Your task to perform on an android device: install app "VLC for Android" Image 0: 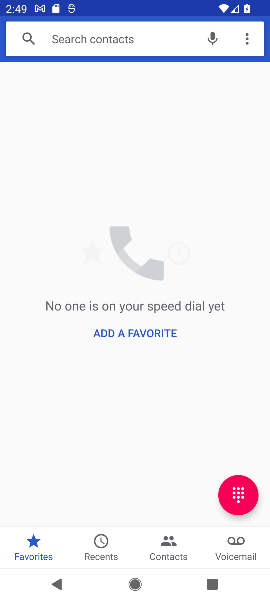
Step 0: press home button
Your task to perform on an android device: install app "VLC for Android" Image 1: 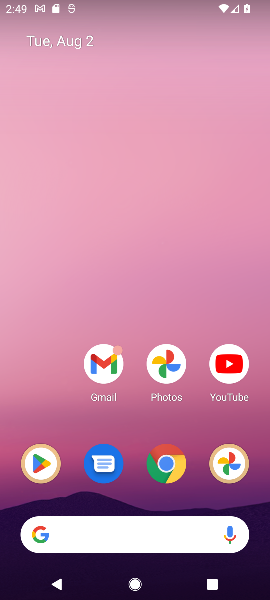
Step 1: click (45, 462)
Your task to perform on an android device: install app "VLC for Android" Image 2: 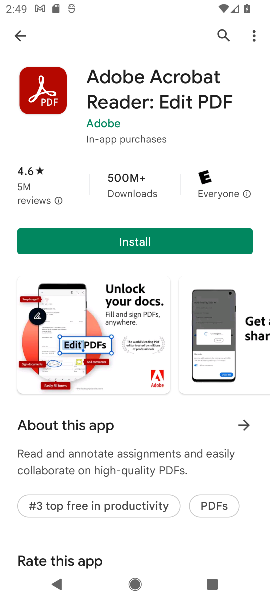
Step 2: click (219, 34)
Your task to perform on an android device: install app "VLC for Android" Image 3: 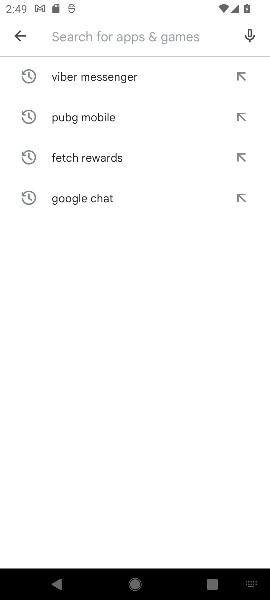
Step 3: type "VLC for Android"
Your task to perform on an android device: install app "VLC for Android" Image 4: 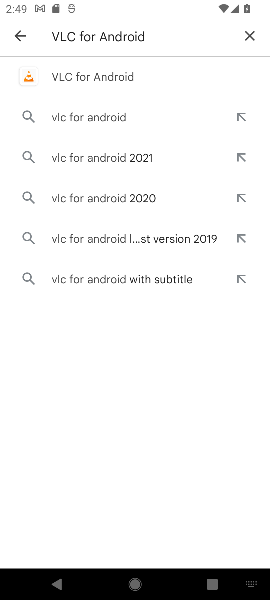
Step 4: click (100, 72)
Your task to perform on an android device: install app "VLC for Android" Image 5: 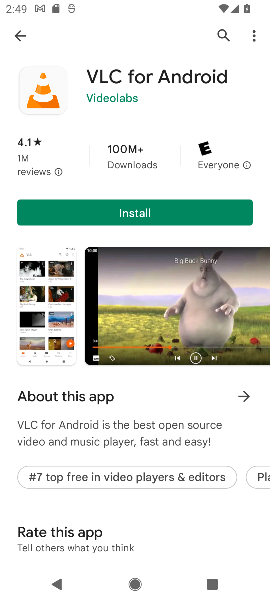
Step 5: click (131, 207)
Your task to perform on an android device: install app "VLC for Android" Image 6: 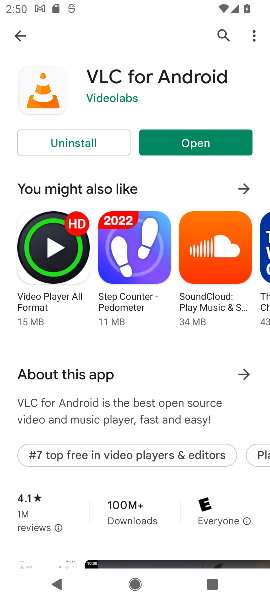
Step 6: task complete